Your task to perform on an android device: turn on improve location accuracy Image 0: 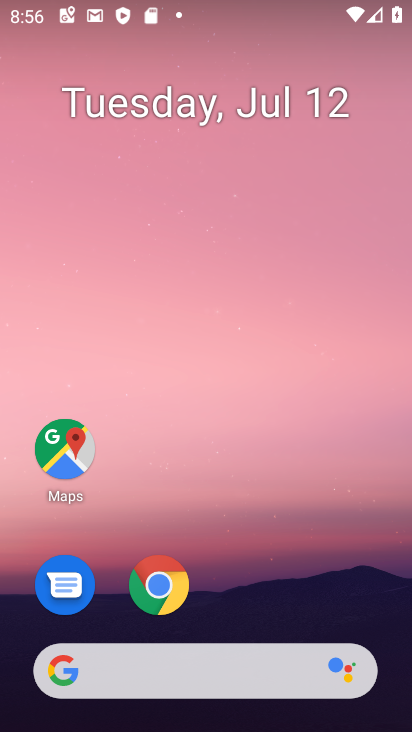
Step 0: drag from (279, 613) to (272, 42)
Your task to perform on an android device: turn on improve location accuracy Image 1: 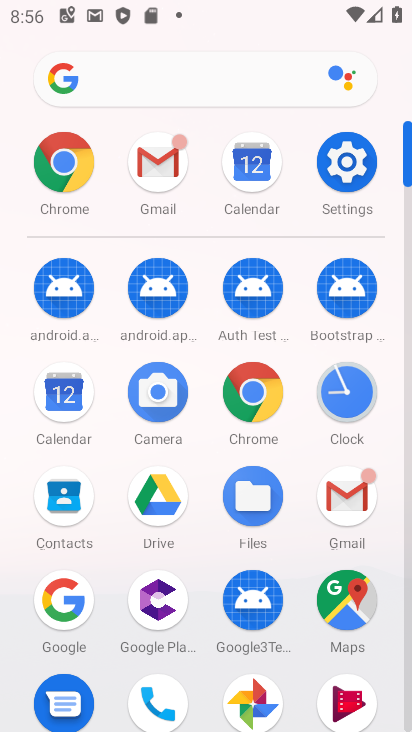
Step 1: click (336, 163)
Your task to perform on an android device: turn on improve location accuracy Image 2: 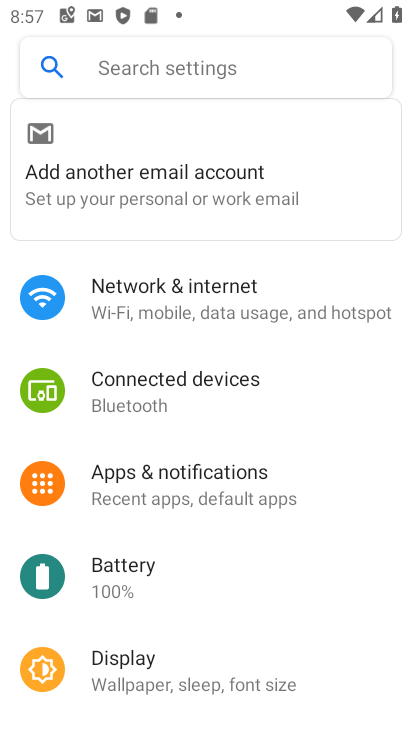
Step 2: drag from (195, 578) to (167, 67)
Your task to perform on an android device: turn on improve location accuracy Image 3: 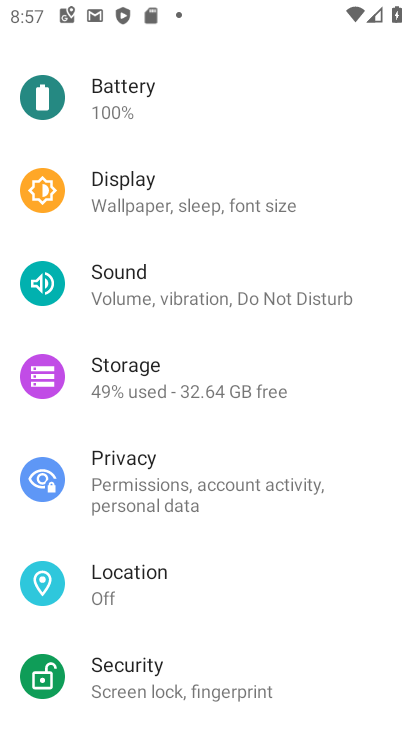
Step 3: click (161, 574)
Your task to perform on an android device: turn on improve location accuracy Image 4: 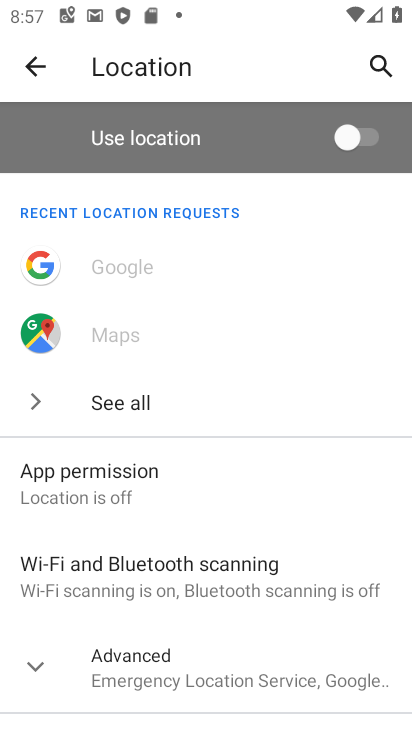
Step 4: drag from (224, 500) to (246, 121)
Your task to perform on an android device: turn on improve location accuracy Image 5: 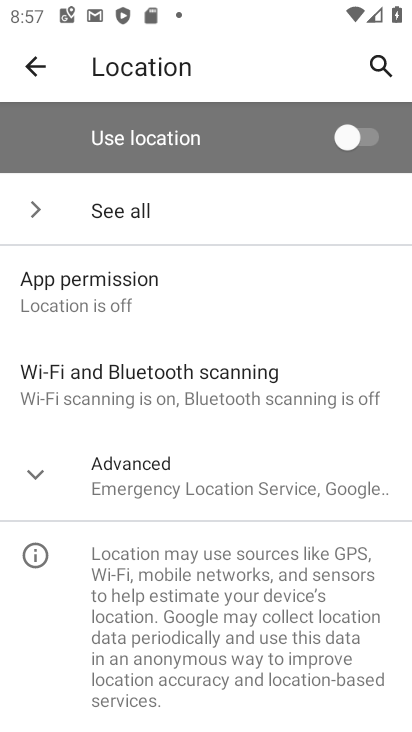
Step 5: click (37, 473)
Your task to perform on an android device: turn on improve location accuracy Image 6: 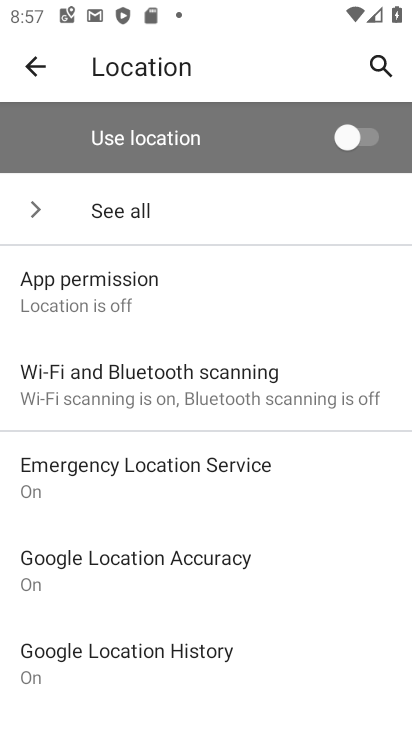
Step 6: click (102, 559)
Your task to perform on an android device: turn on improve location accuracy Image 7: 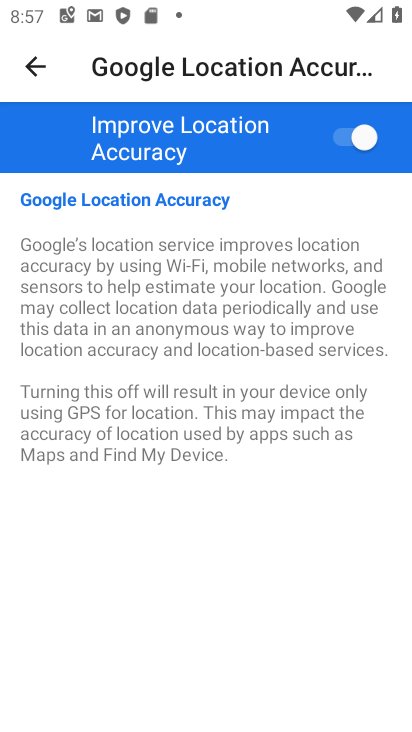
Step 7: task complete